Your task to perform on an android device: Open Chrome and go to settings Image 0: 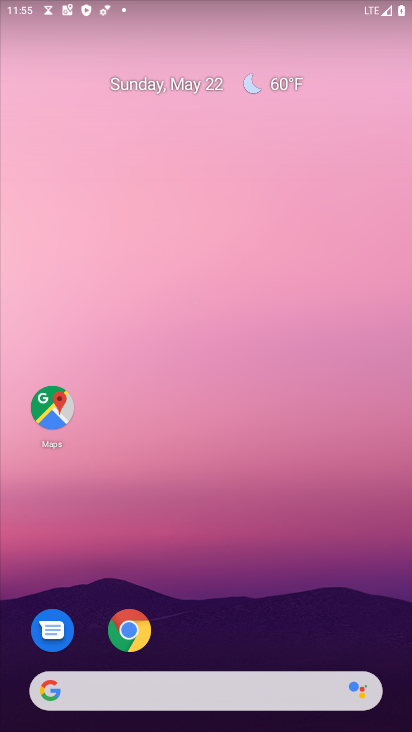
Step 0: click (129, 631)
Your task to perform on an android device: Open Chrome and go to settings Image 1: 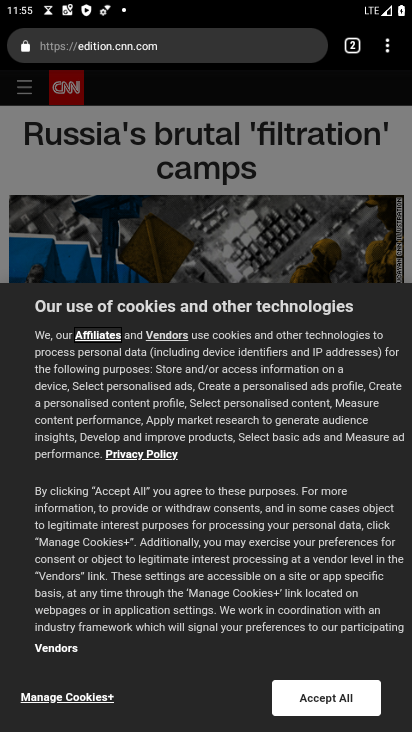
Step 1: click (388, 48)
Your task to perform on an android device: Open Chrome and go to settings Image 2: 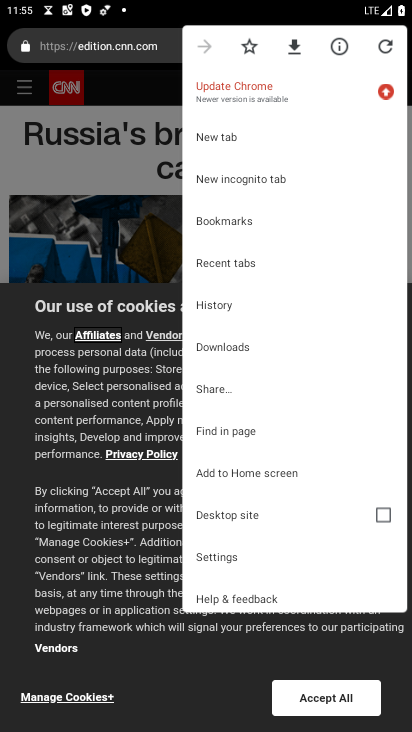
Step 2: click (236, 556)
Your task to perform on an android device: Open Chrome and go to settings Image 3: 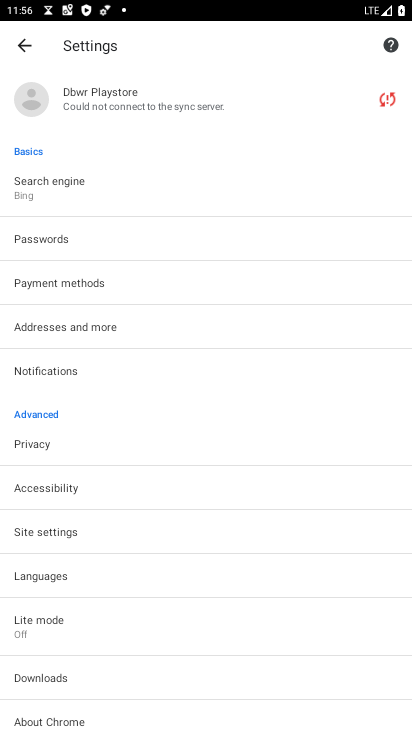
Step 3: task complete